Your task to perform on an android device: turn off priority inbox in the gmail app Image 0: 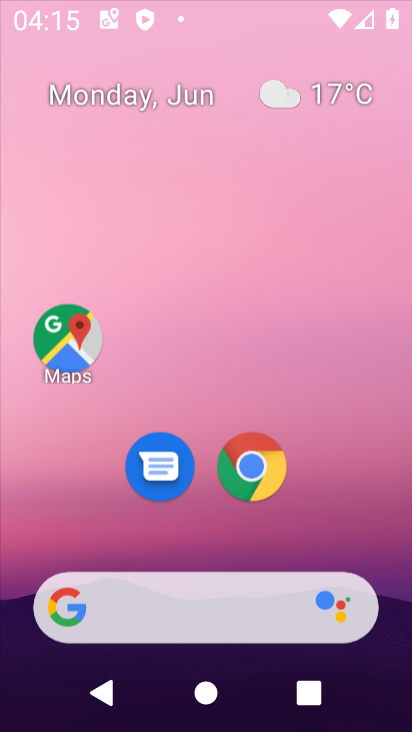
Step 0: drag from (224, 38) to (142, 443)
Your task to perform on an android device: turn off priority inbox in the gmail app Image 1: 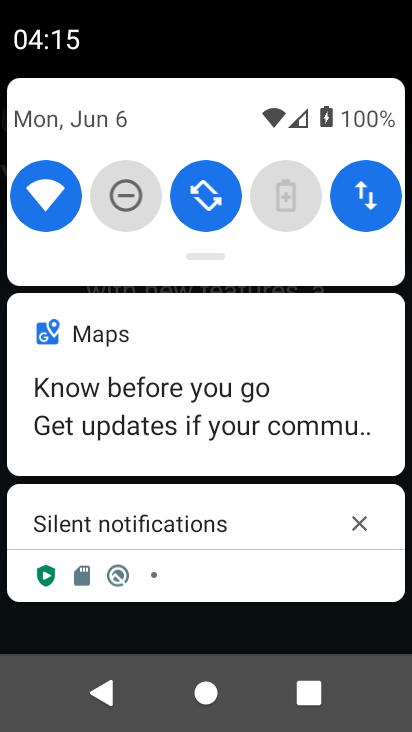
Step 1: press home button
Your task to perform on an android device: turn off priority inbox in the gmail app Image 2: 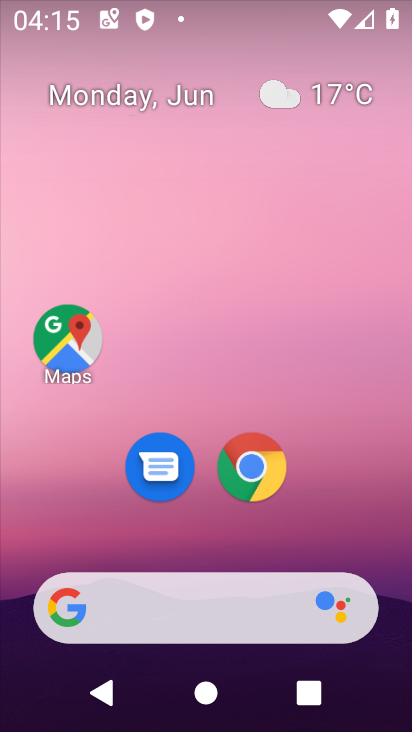
Step 2: drag from (225, 543) to (213, 189)
Your task to perform on an android device: turn off priority inbox in the gmail app Image 3: 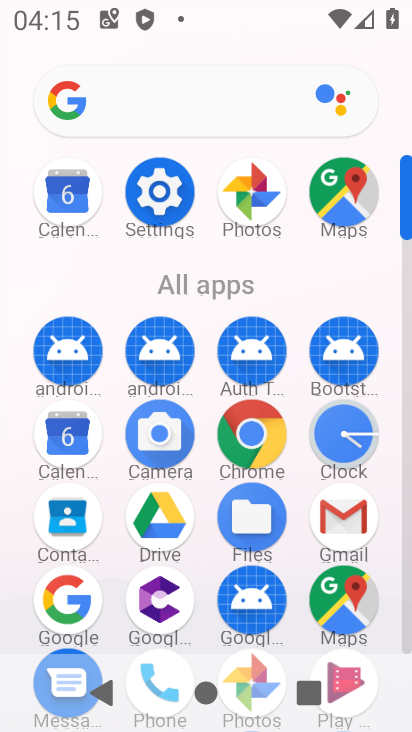
Step 3: click (343, 517)
Your task to perform on an android device: turn off priority inbox in the gmail app Image 4: 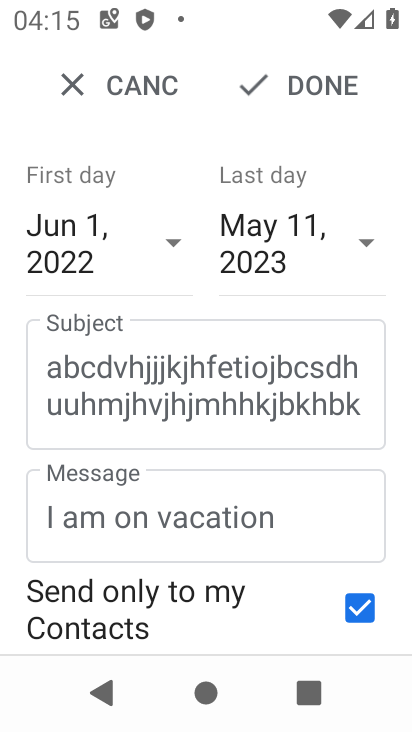
Step 4: press back button
Your task to perform on an android device: turn off priority inbox in the gmail app Image 5: 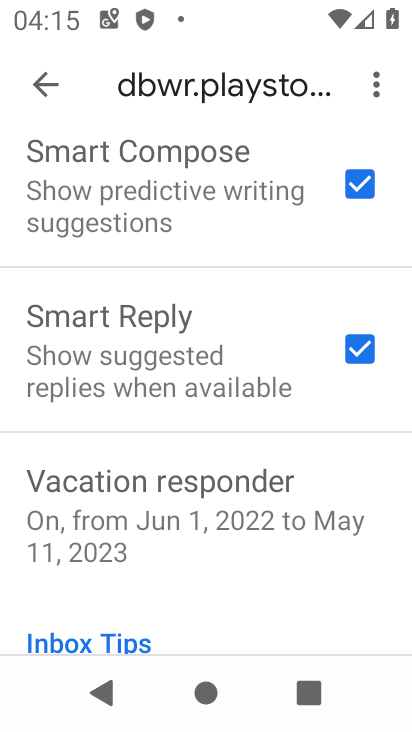
Step 5: drag from (111, 210) to (153, 706)
Your task to perform on an android device: turn off priority inbox in the gmail app Image 6: 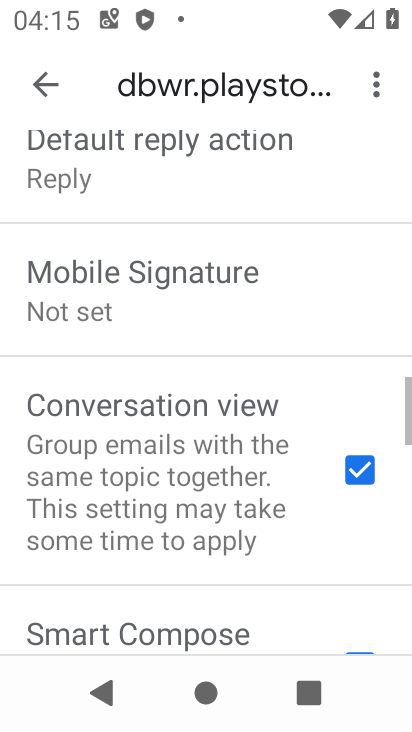
Step 6: drag from (208, 260) to (245, 653)
Your task to perform on an android device: turn off priority inbox in the gmail app Image 7: 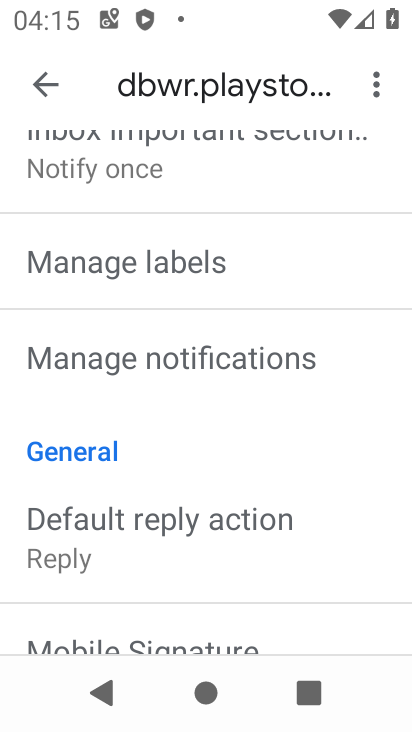
Step 7: drag from (185, 265) to (210, 729)
Your task to perform on an android device: turn off priority inbox in the gmail app Image 8: 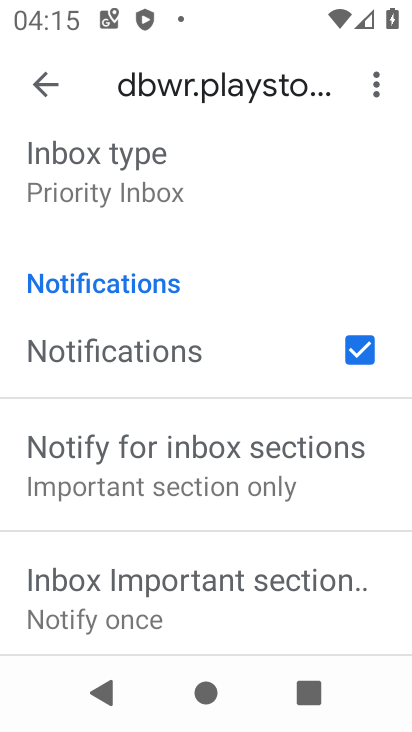
Step 8: drag from (140, 298) to (191, 618)
Your task to perform on an android device: turn off priority inbox in the gmail app Image 9: 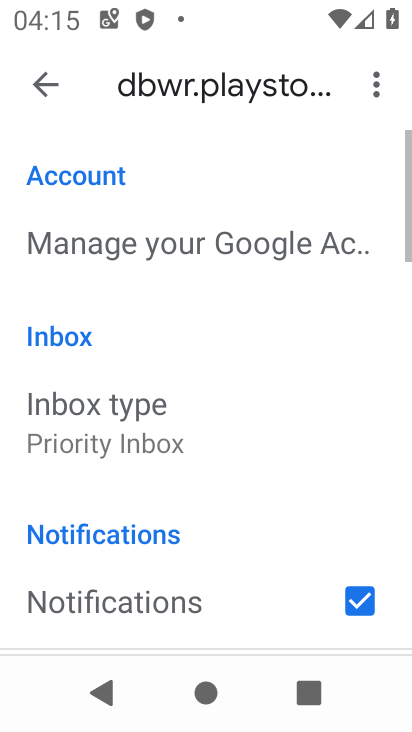
Step 9: click (104, 435)
Your task to perform on an android device: turn off priority inbox in the gmail app Image 10: 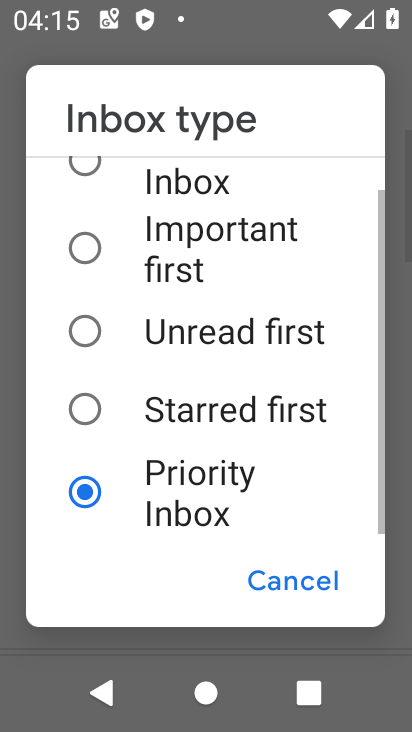
Step 10: drag from (169, 206) to (214, 652)
Your task to perform on an android device: turn off priority inbox in the gmail app Image 11: 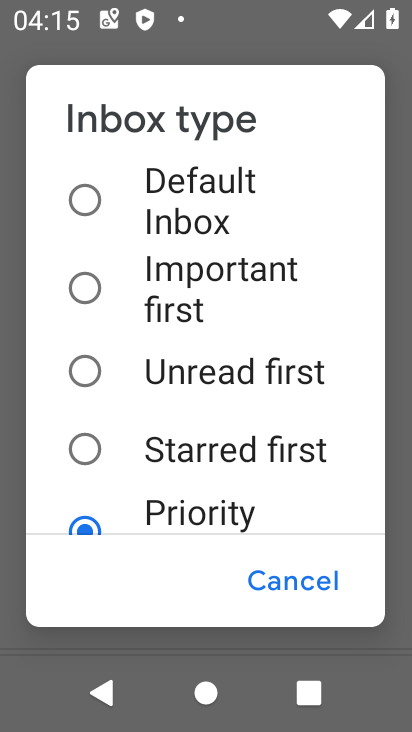
Step 11: click (89, 218)
Your task to perform on an android device: turn off priority inbox in the gmail app Image 12: 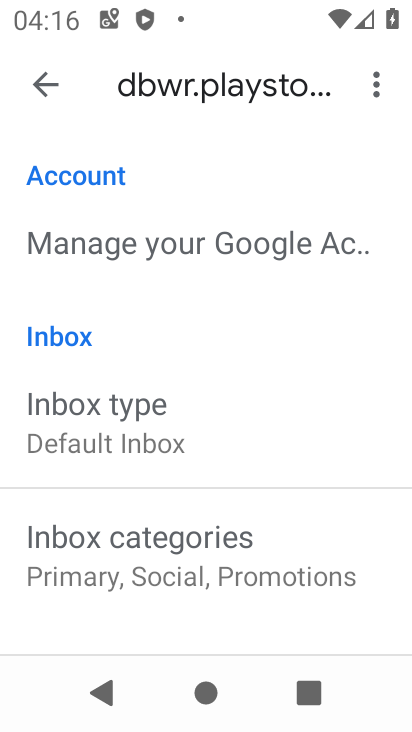
Step 12: task complete